Your task to perform on an android device: Empty the shopping cart on bestbuy. Image 0: 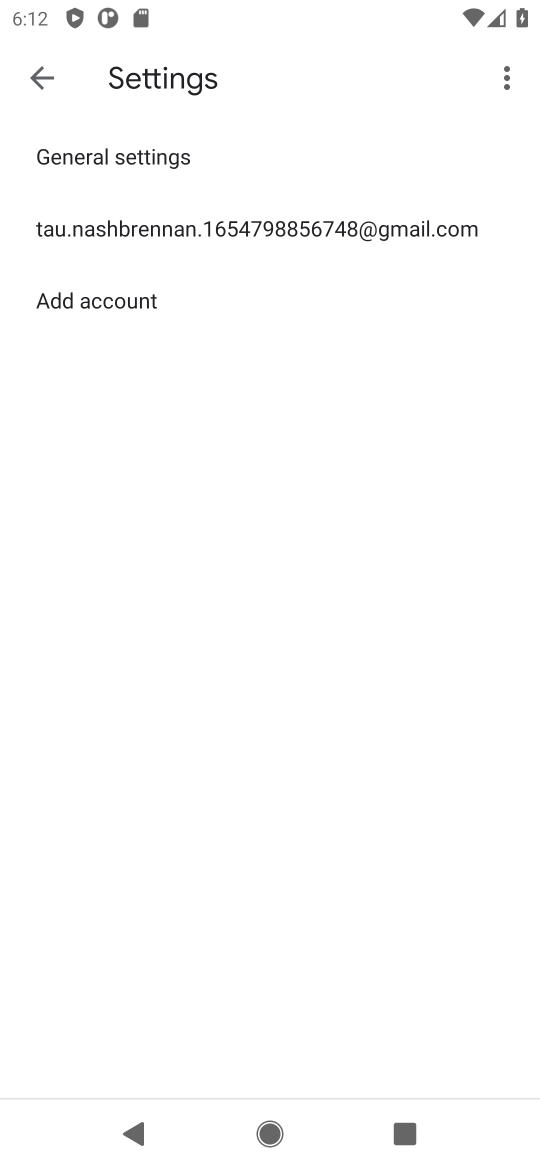
Step 0: press home button
Your task to perform on an android device: Empty the shopping cart on bestbuy. Image 1: 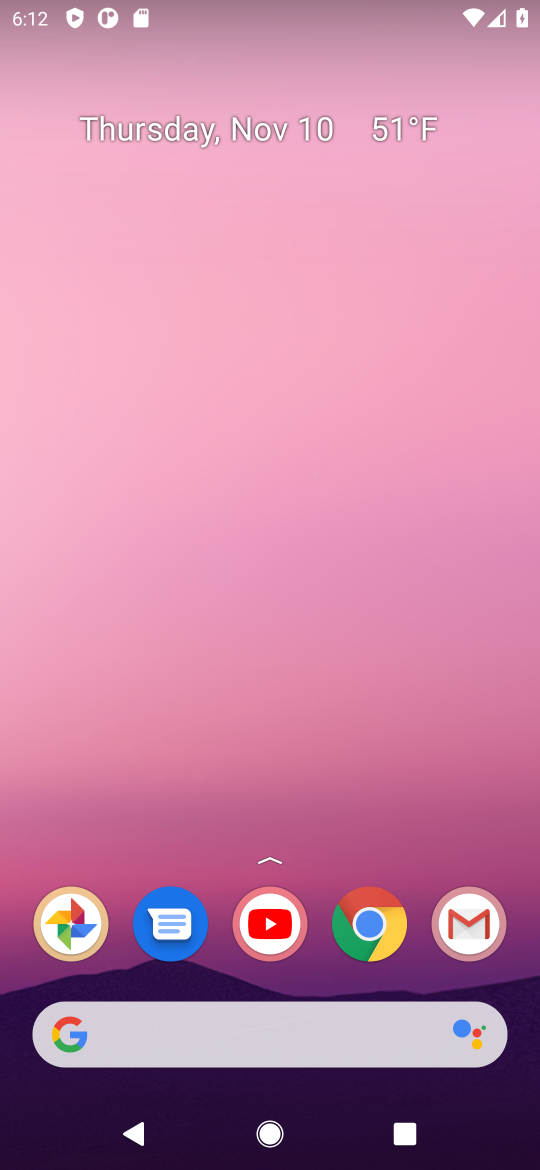
Step 1: click (360, 933)
Your task to perform on an android device: Empty the shopping cart on bestbuy. Image 2: 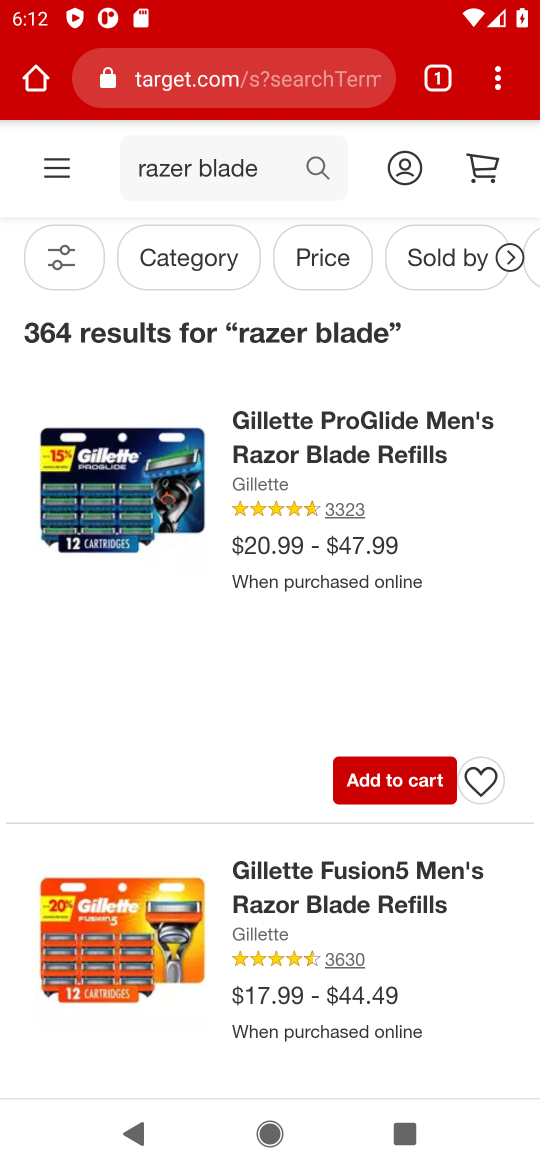
Step 2: click (206, 73)
Your task to perform on an android device: Empty the shopping cart on bestbuy. Image 3: 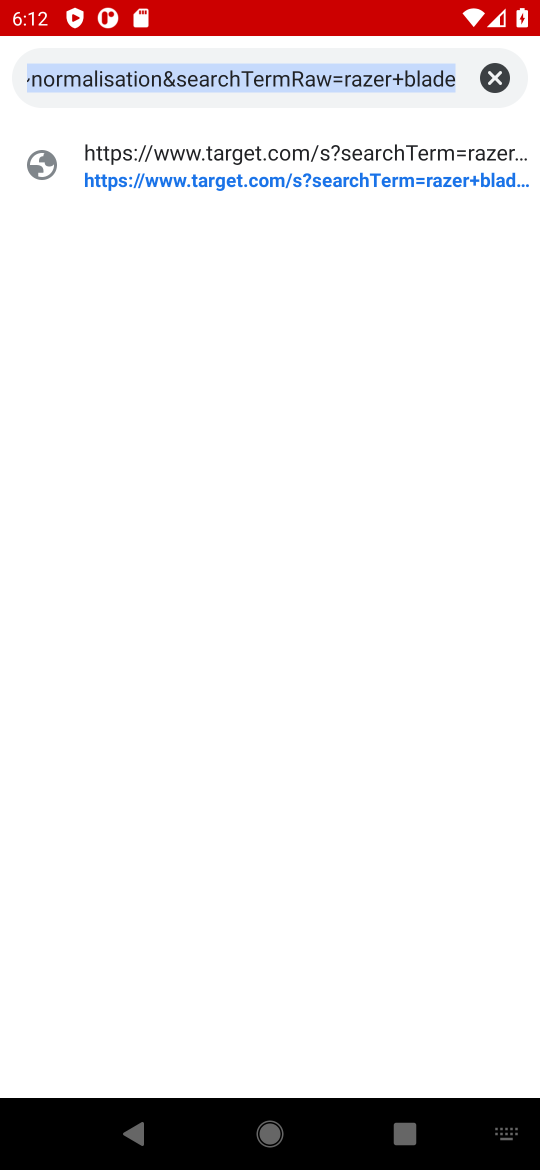
Step 3: click (489, 77)
Your task to perform on an android device: Empty the shopping cart on bestbuy. Image 4: 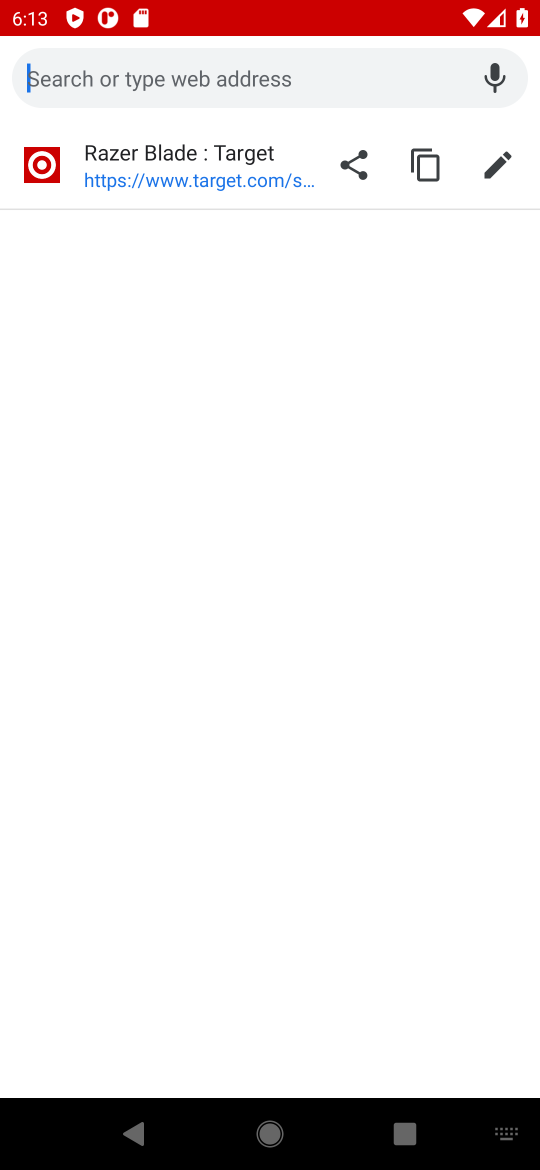
Step 4: type "bestbuy.com"
Your task to perform on an android device: Empty the shopping cart on bestbuy. Image 5: 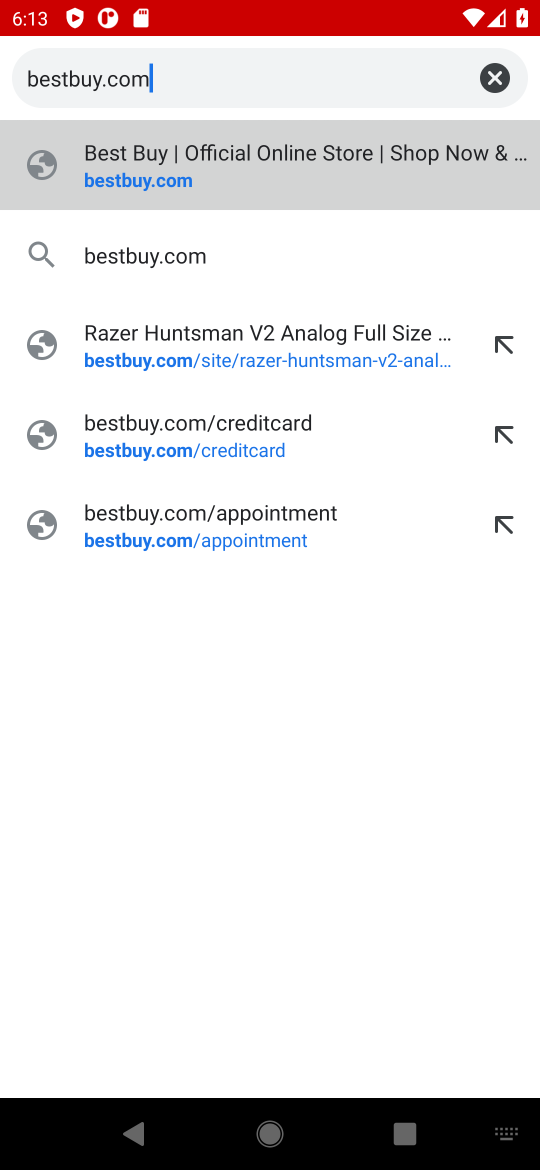
Step 5: click (133, 175)
Your task to perform on an android device: Empty the shopping cart on bestbuy. Image 6: 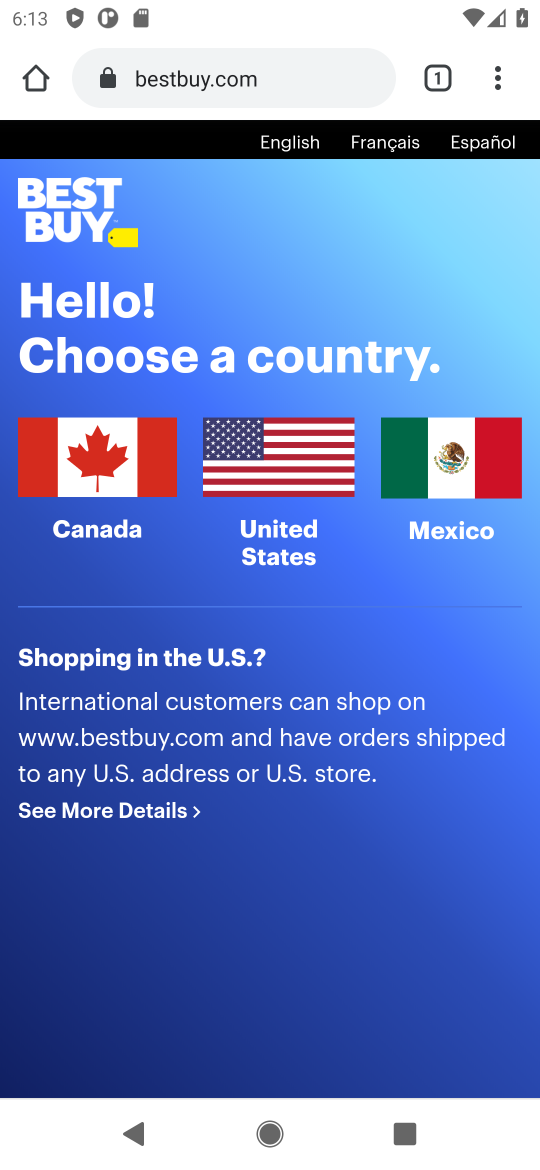
Step 6: click (258, 459)
Your task to perform on an android device: Empty the shopping cart on bestbuy. Image 7: 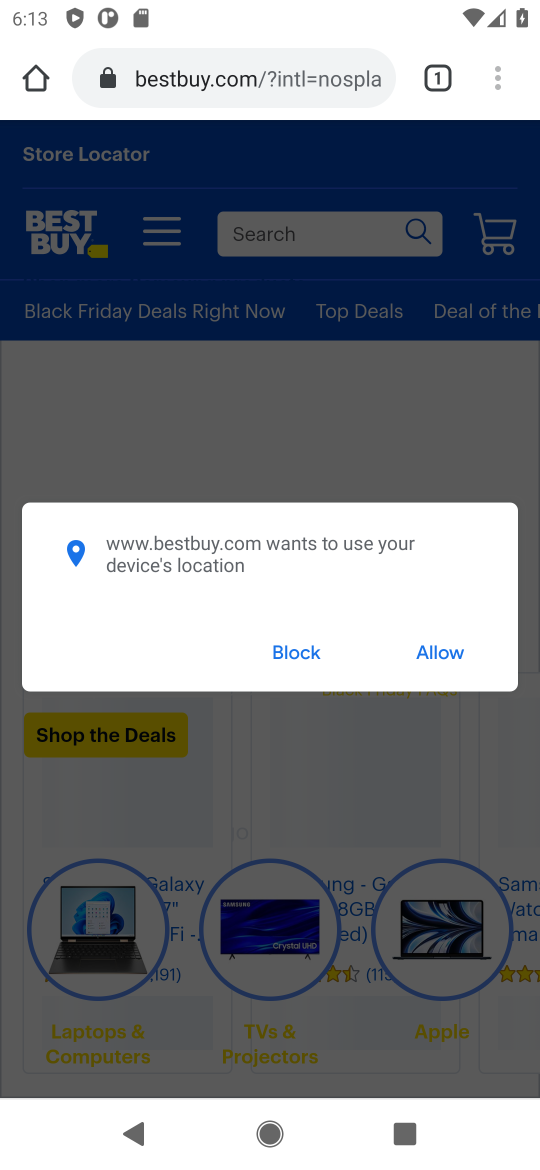
Step 7: click (308, 658)
Your task to perform on an android device: Empty the shopping cart on bestbuy. Image 8: 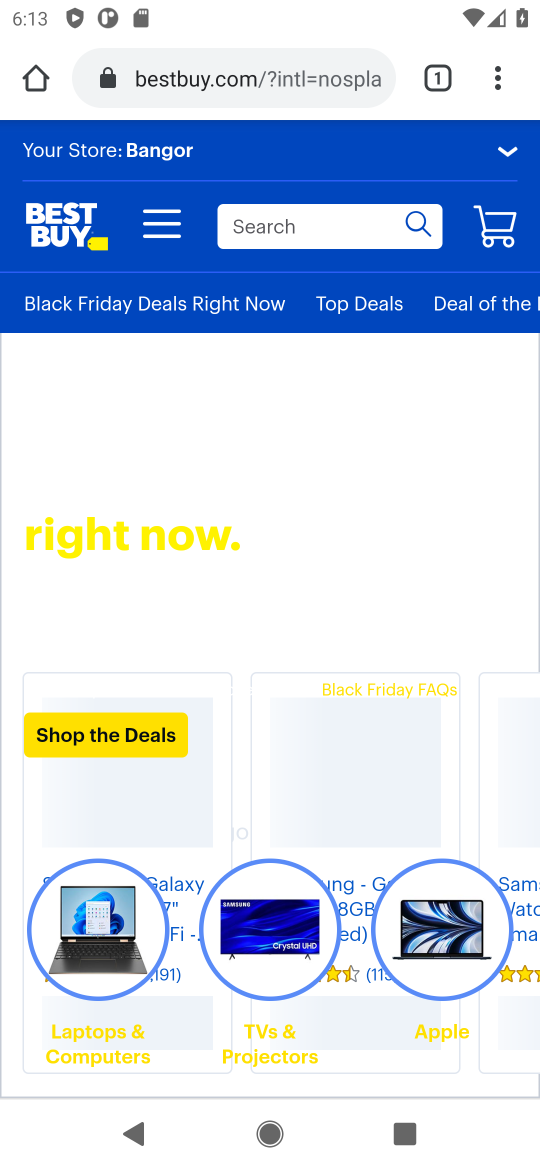
Step 8: click (506, 226)
Your task to perform on an android device: Empty the shopping cart on bestbuy. Image 9: 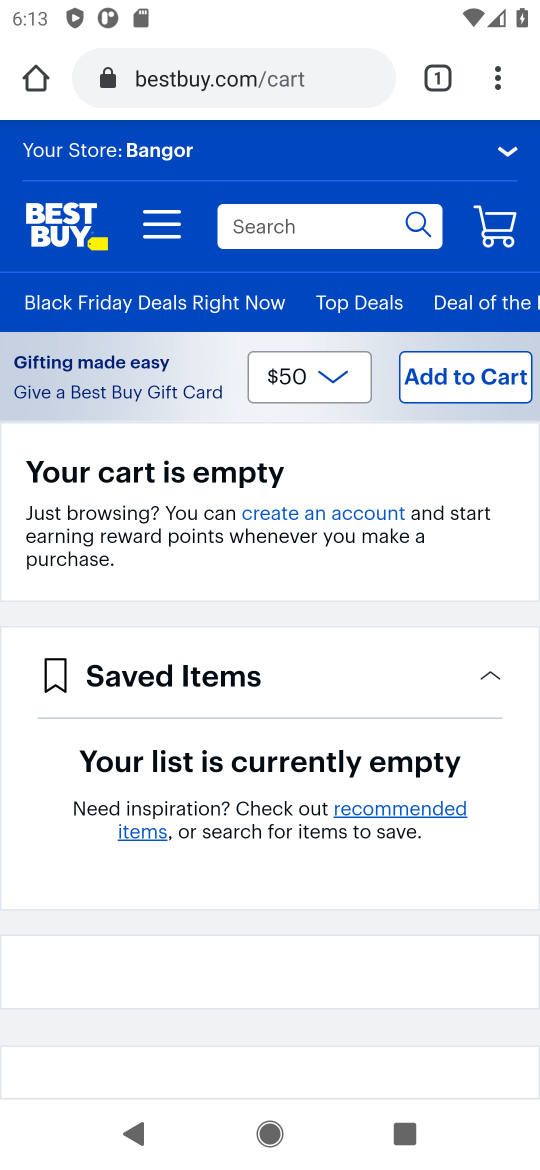
Step 9: task complete